Your task to perform on an android device: What's on my calendar tomorrow? Image 0: 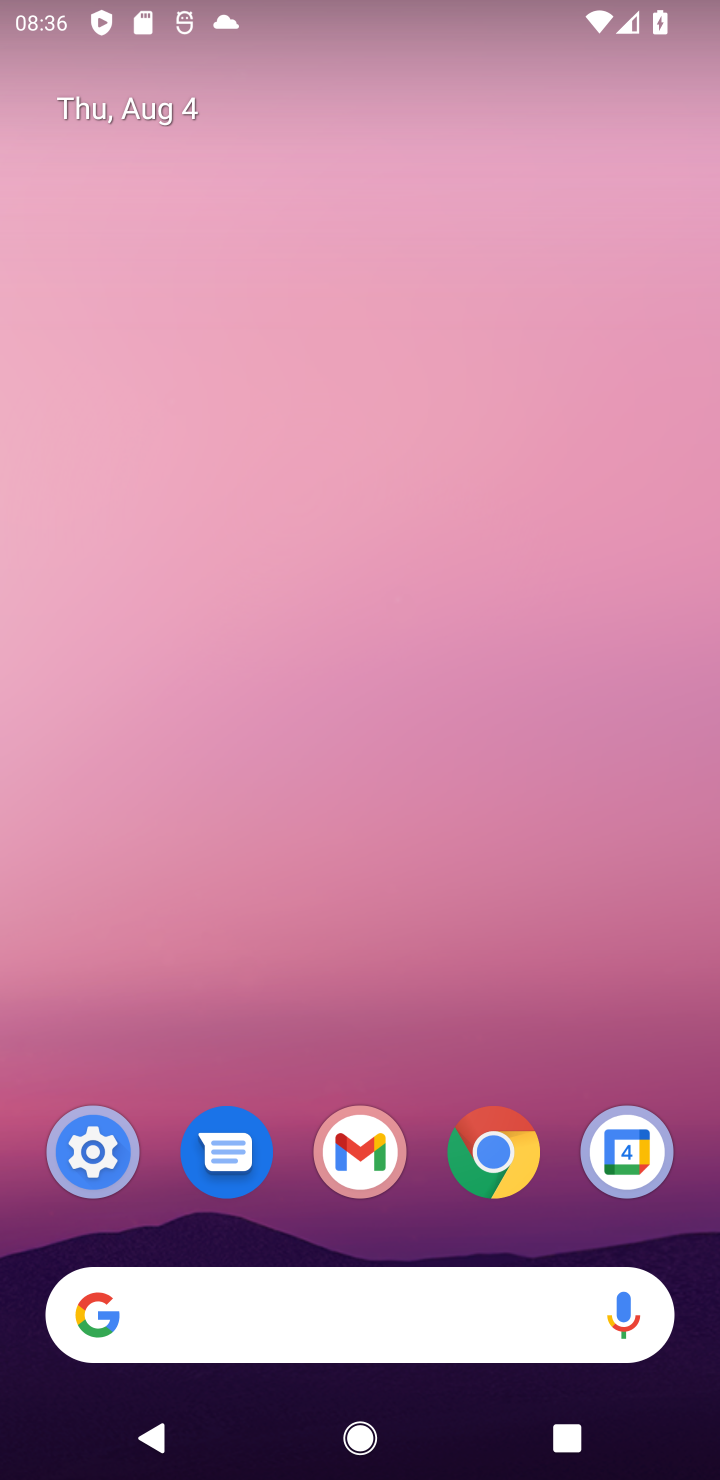
Step 0: drag from (23, 1383) to (520, 331)
Your task to perform on an android device: What's on my calendar tomorrow? Image 1: 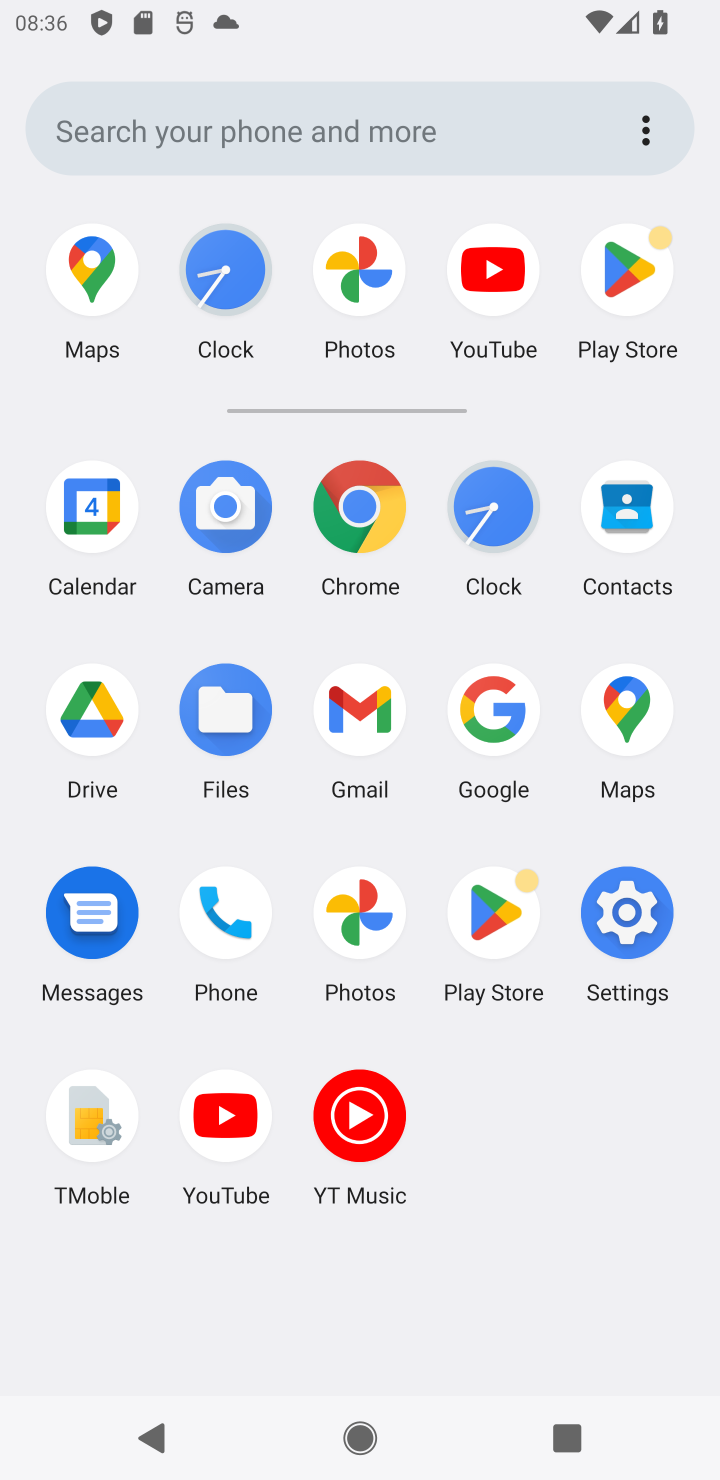
Step 1: click (77, 497)
Your task to perform on an android device: What's on my calendar tomorrow? Image 2: 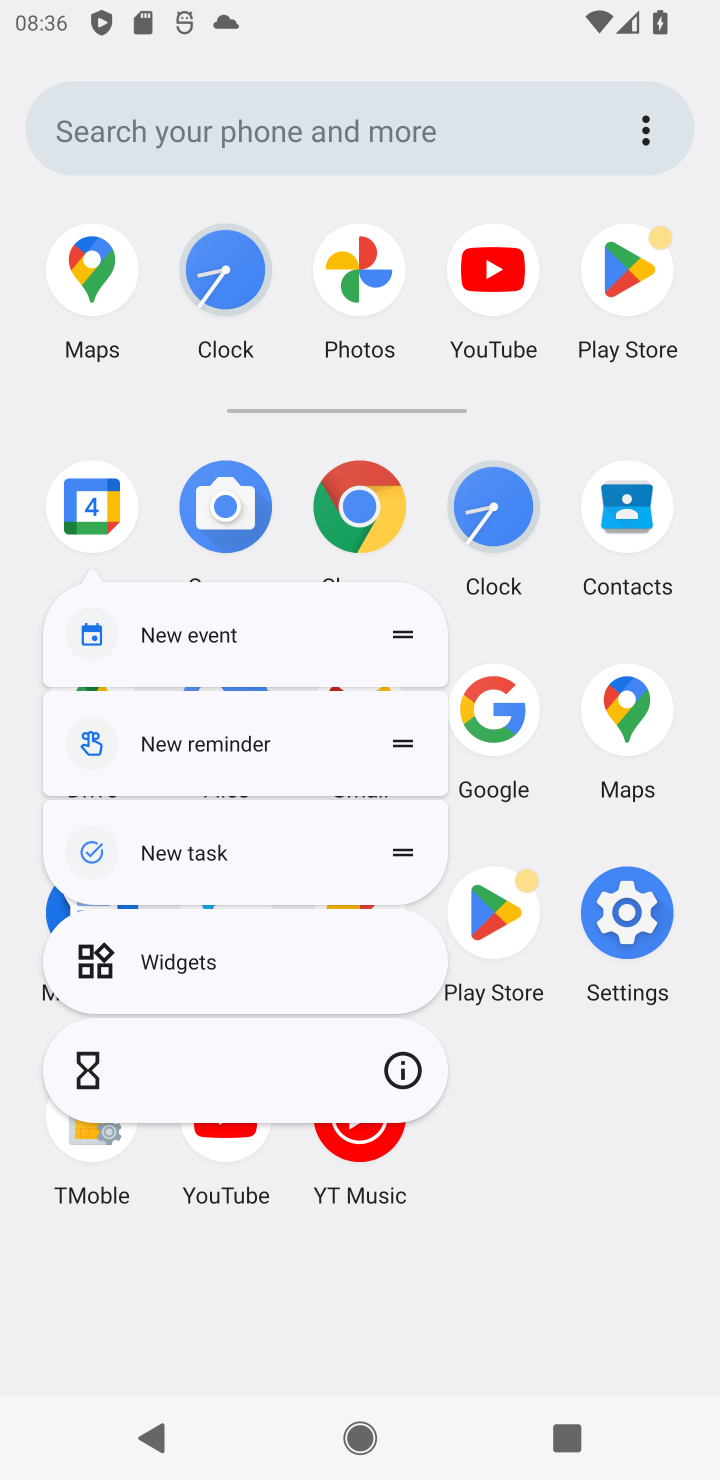
Step 2: click (86, 481)
Your task to perform on an android device: What's on my calendar tomorrow? Image 3: 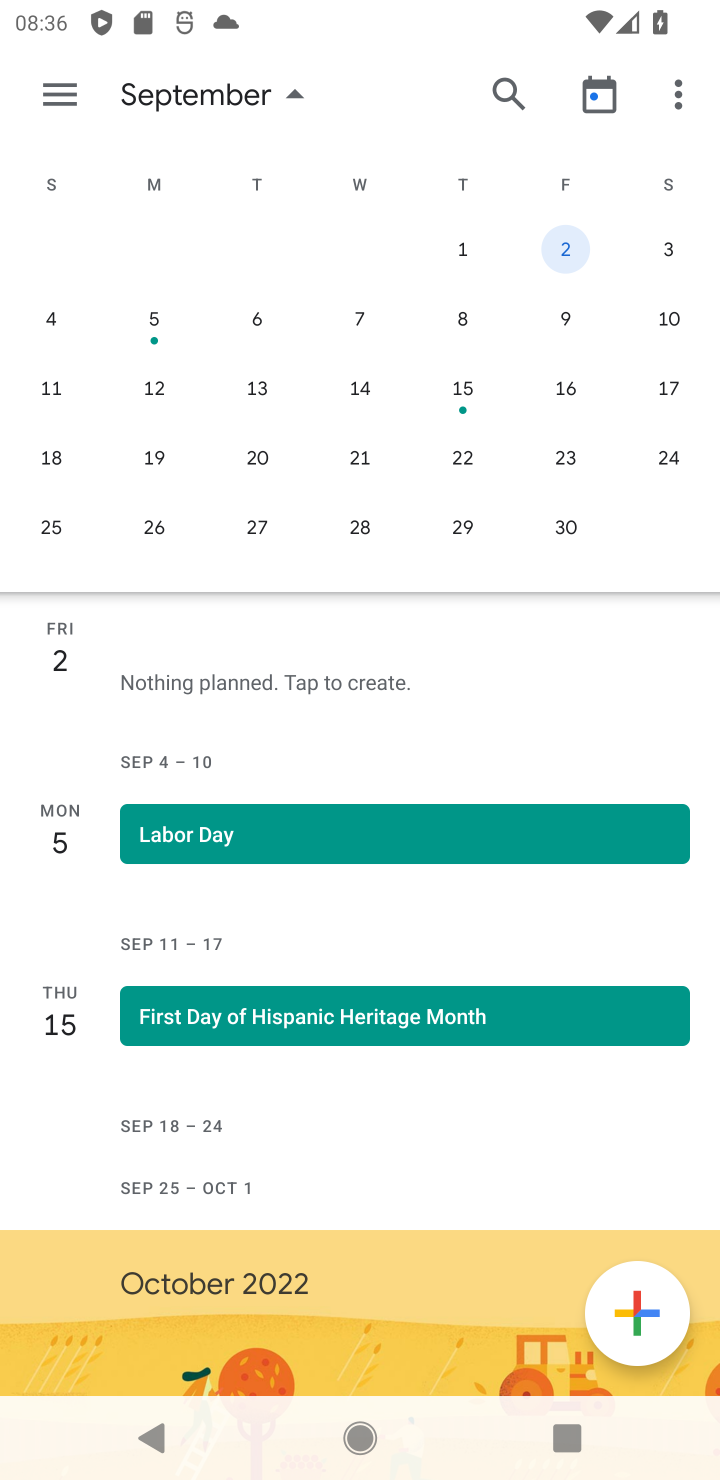
Step 3: drag from (194, 427) to (680, 289)
Your task to perform on an android device: What's on my calendar tomorrow? Image 4: 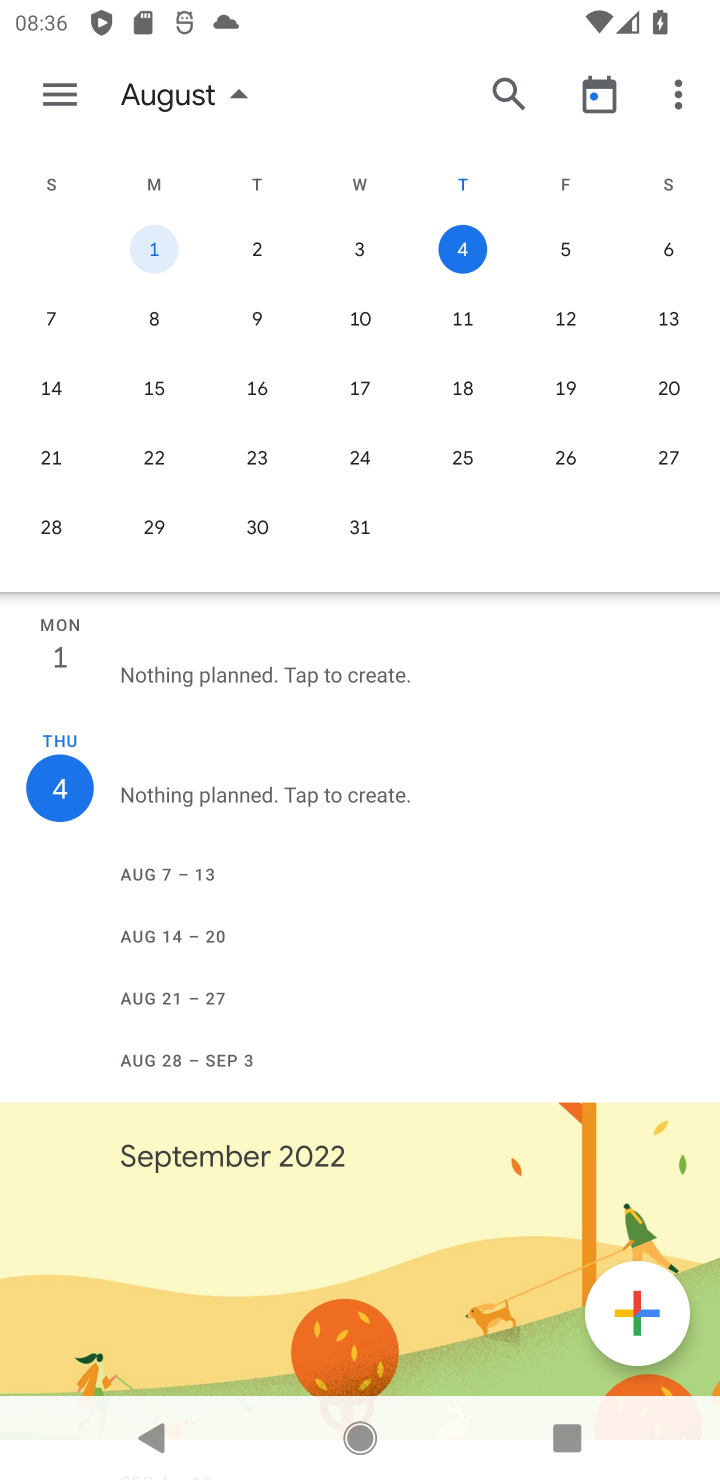
Step 4: click (553, 240)
Your task to perform on an android device: What's on my calendar tomorrow? Image 5: 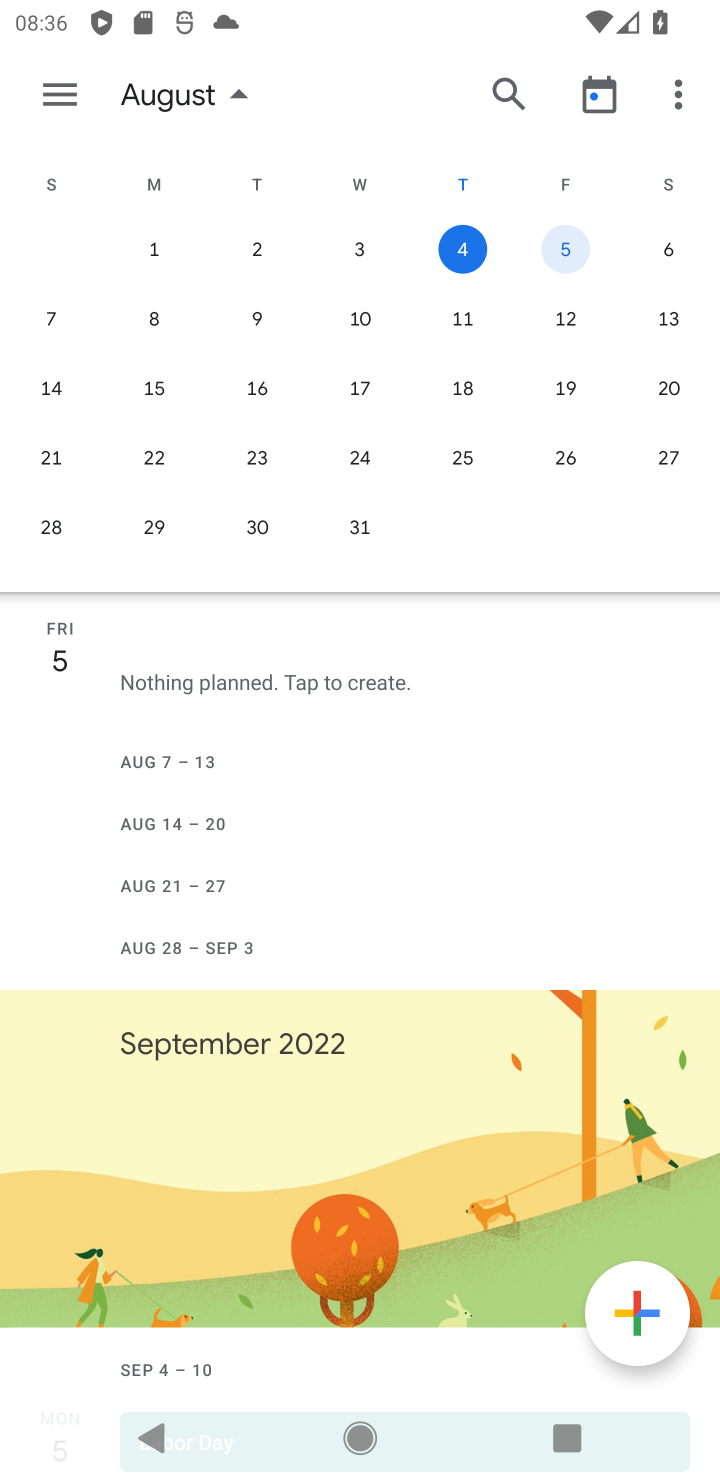
Step 5: task complete